Your task to perform on an android device: When is my next appointment? Image 0: 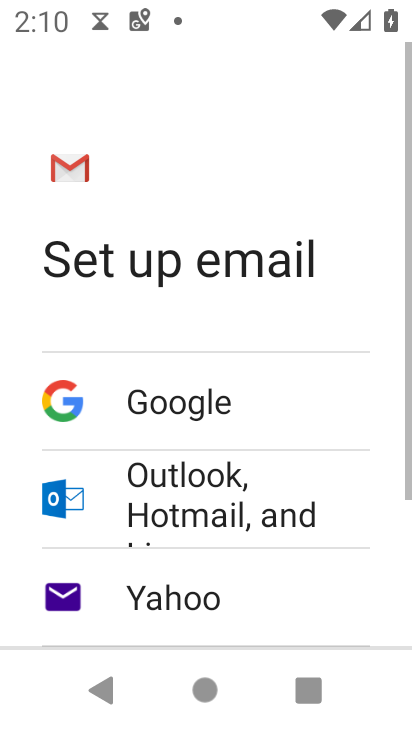
Step 0: press home button
Your task to perform on an android device: When is my next appointment? Image 1: 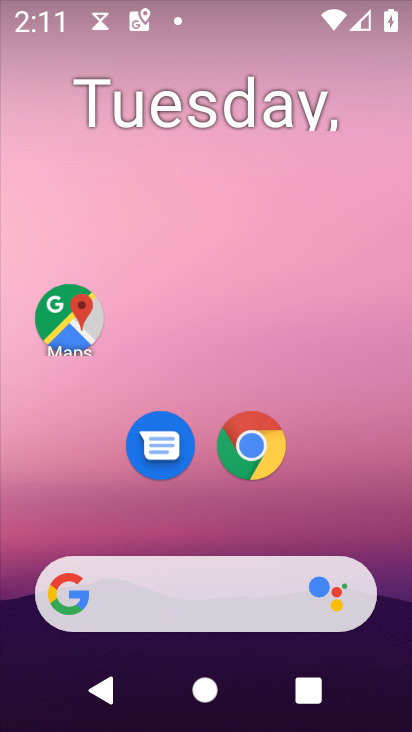
Step 1: drag from (233, 594) to (180, 67)
Your task to perform on an android device: When is my next appointment? Image 2: 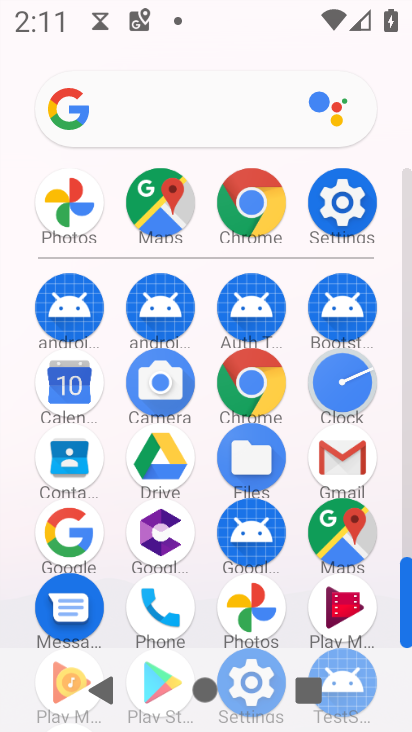
Step 2: click (64, 394)
Your task to perform on an android device: When is my next appointment? Image 3: 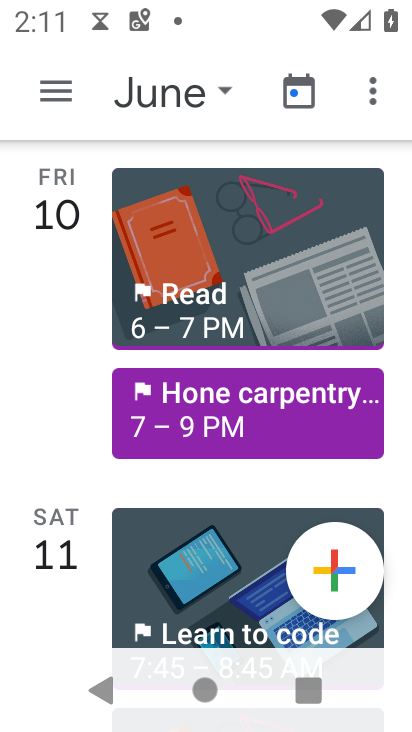
Step 3: click (228, 92)
Your task to perform on an android device: When is my next appointment? Image 4: 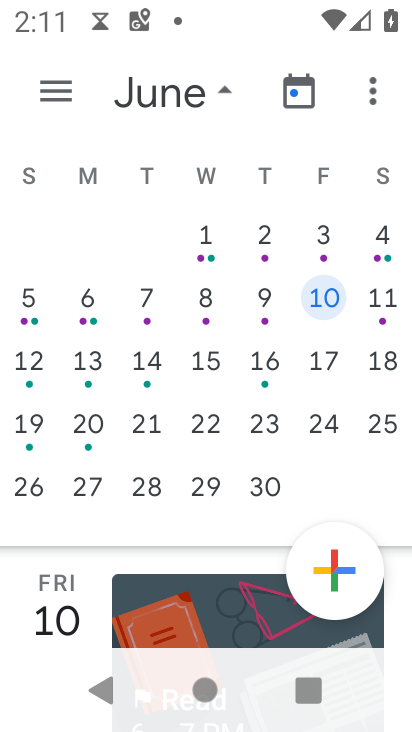
Step 4: drag from (37, 267) to (387, 271)
Your task to perform on an android device: When is my next appointment? Image 5: 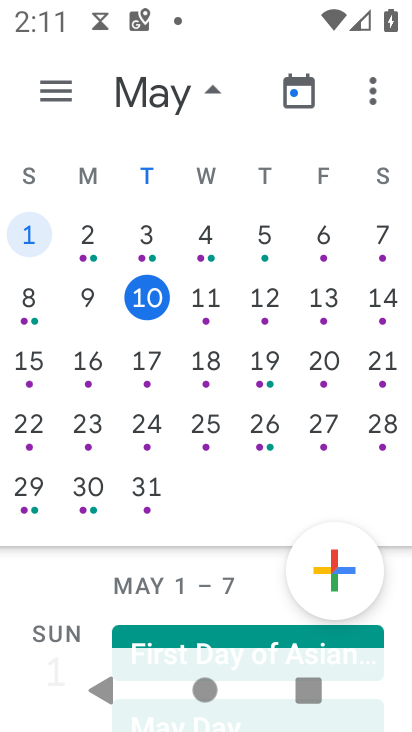
Step 5: click (152, 301)
Your task to perform on an android device: When is my next appointment? Image 6: 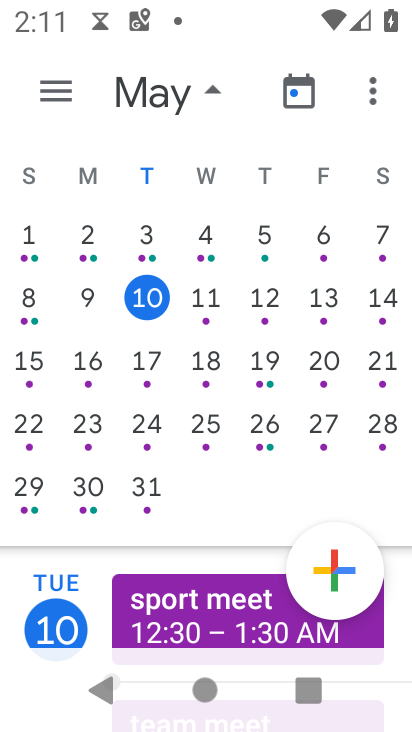
Step 6: task complete